Your task to perform on an android device: turn on data saver in the chrome app Image 0: 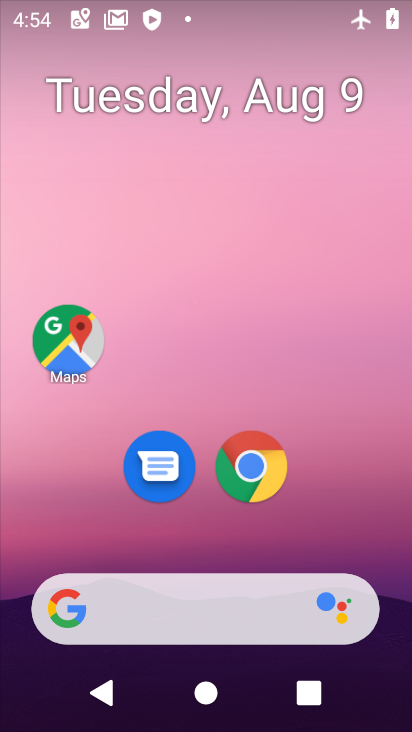
Step 0: drag from (219, 539) to (269, 127)
Your task to perform on an android device: turn on data saver in the chrome app Image 1: 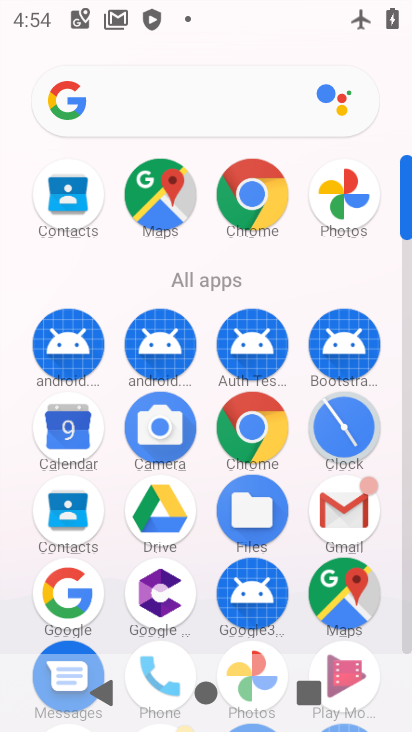
Step 1: click (262, 423)
Your task to perform on an android device: turn on data saver in the chrome app Image 2: 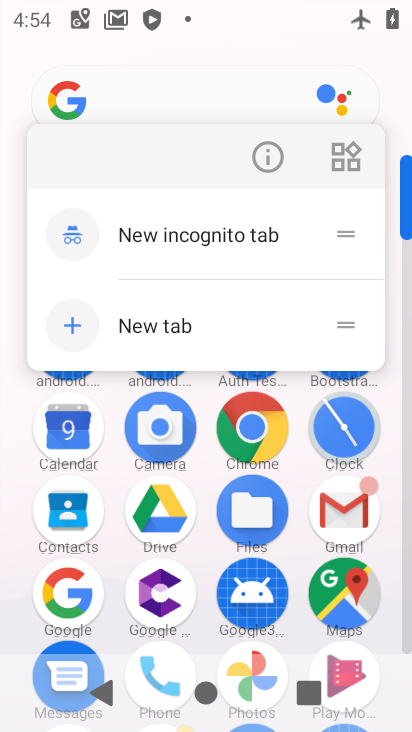
Step 2: click (264, 146)
Your task to perform on an android device: turn on data saver in the chrome app Image 3: 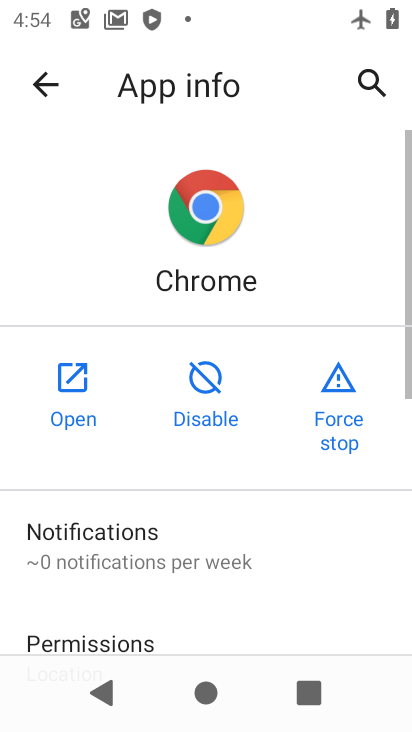
Step 3: click (70, 373)
Your task to perform on an android device: turn on data saver in the chrome app Image 4: 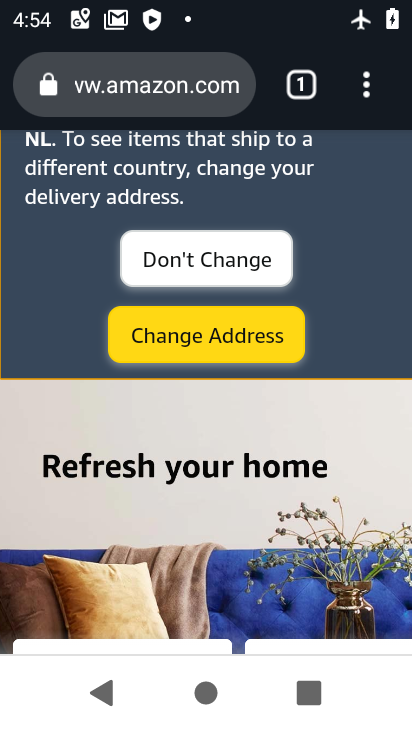
Step 4: drag from (358, 89) to (138, 519)
Your task to perform on an android device: turn on data saver in the chrome app Image 5: 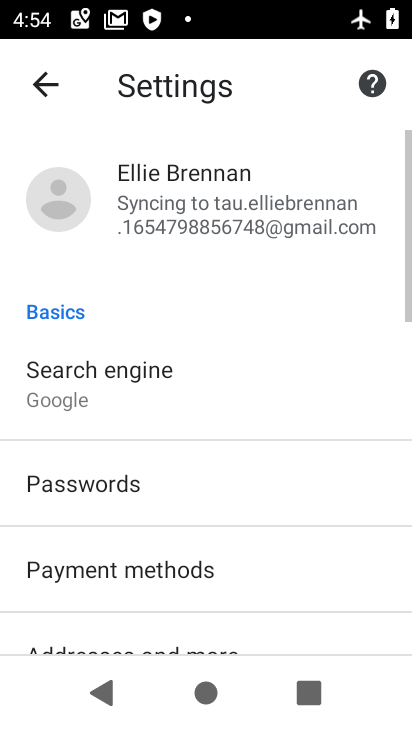
Step 5: drag from (193, 455) to (208, 59)
Your task to perform on an android device: turn on data saver in the chrome app Image 6: 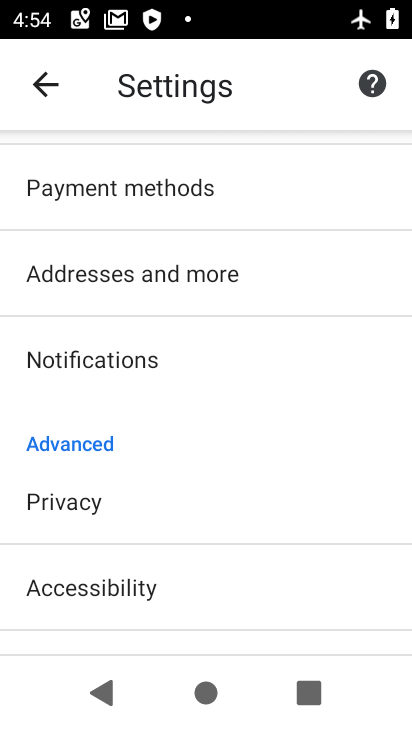
Step 6: drag from (153, 596) to (247, 198)
Your task to perform on an android device: turn on data saver in the chrome app Image 7: 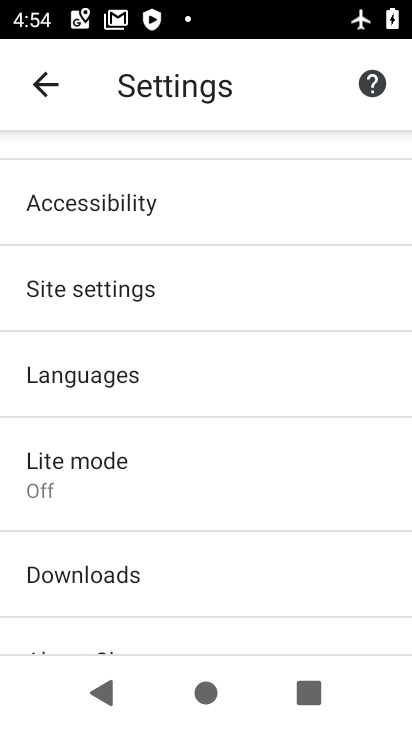
Step 7: click (118, 483)
Your task to perform on an android device: turn on data saver in the chrome app Image 8: 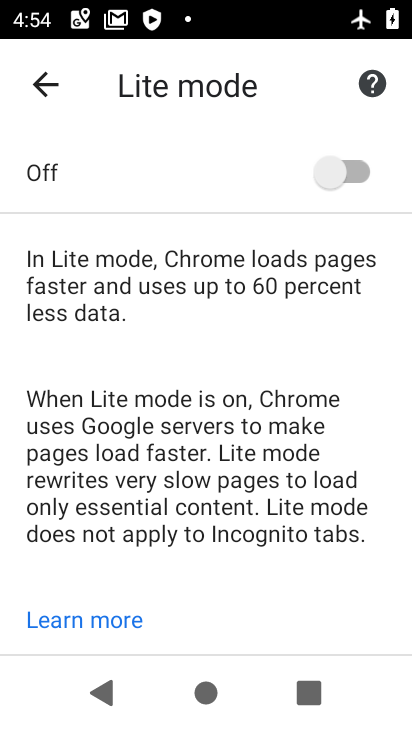
Step 8: click (338, 163)
Your task to perform on an android device: turn on data saver in the chrome app Image 9: 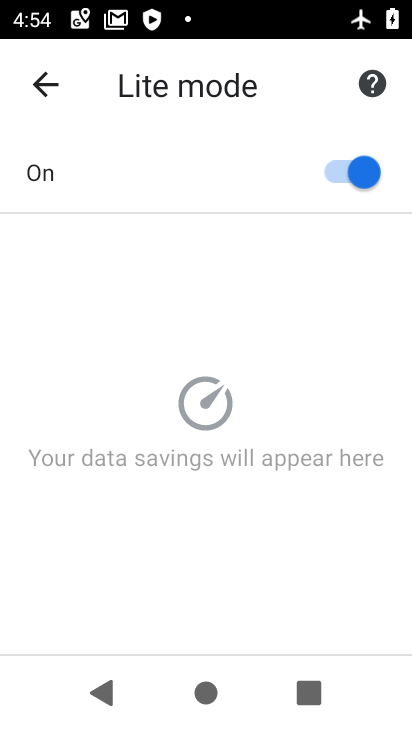
Step 9: task complete